Your task to perform on an android device: Open Yahoo.com Image 0: 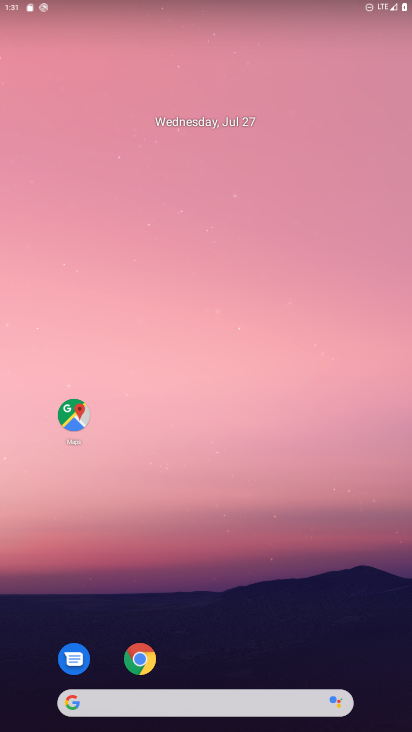
Step 0: click (183, 698)
Your task to perform on an android device: Open Yahoo.com Image 1: 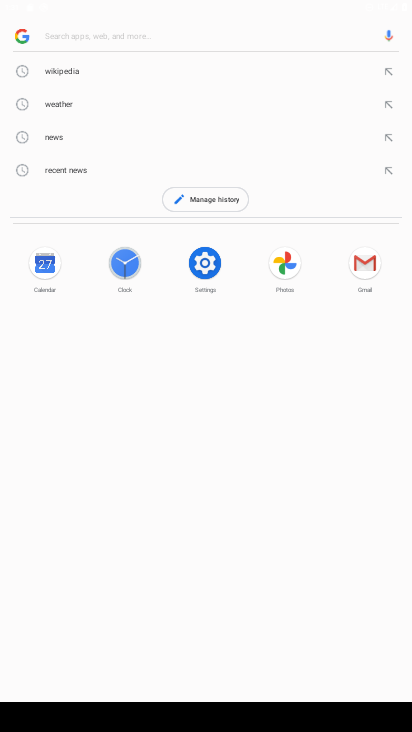
Step 1: click (172, 25)
Your task to perform on an android device: Open Yahoo.com Image 2: 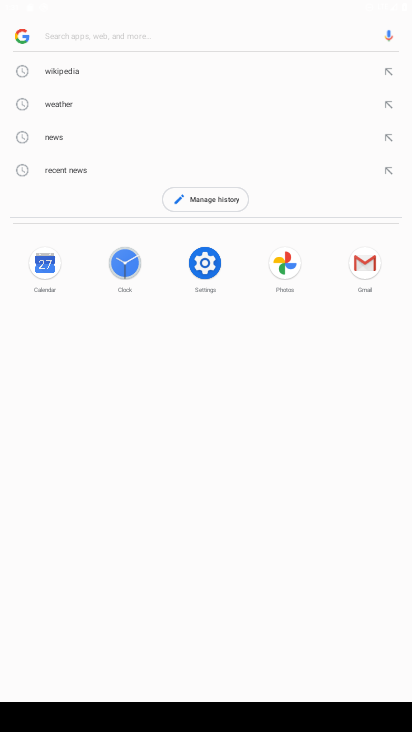
Step 2: type "yahoo.com"
Your task to perform on an android device: Open Yahoo.com Image 3: 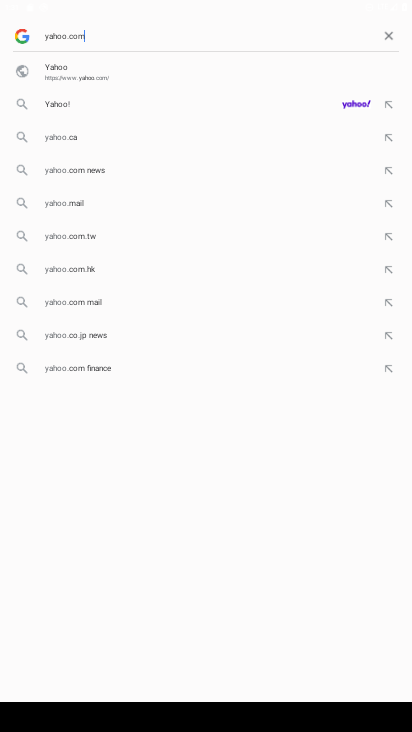
Step 3: type ""
Your task to perform on an android device: Open Yahoo.com Image 4: 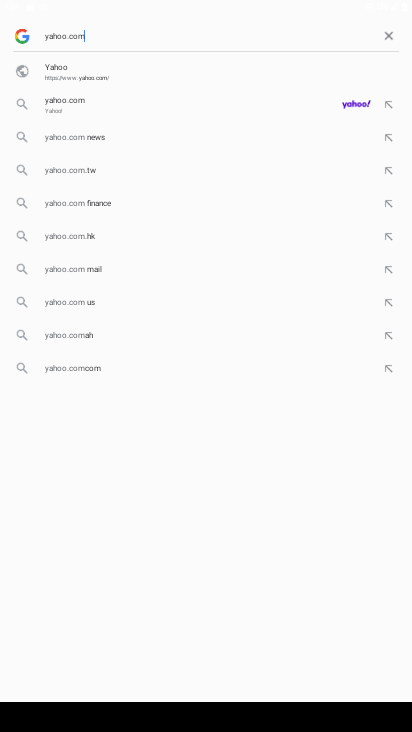
Step 4: click (151, 104)
Your task to perform on an android device: Open Yahoo.com Image 5: 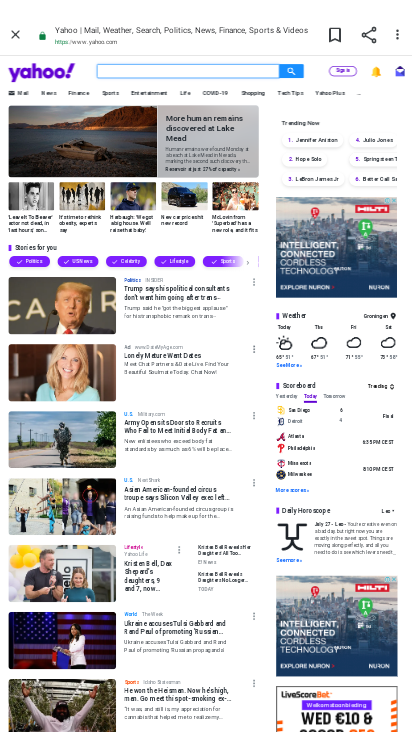
Step 5: task complete